Your task to perform on an android device: empty trash in the gmail app Image 0: 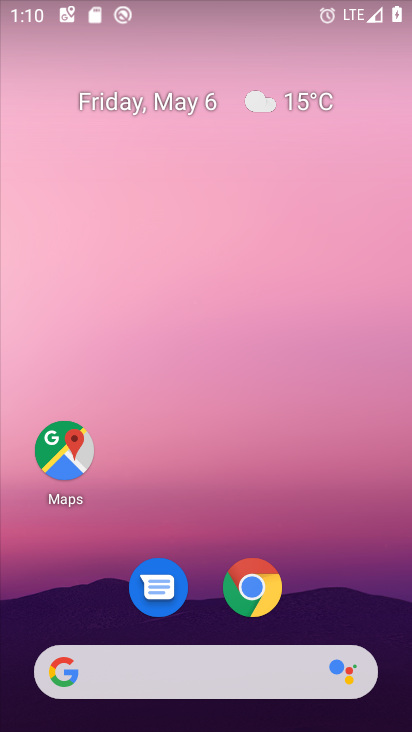
Step 0: drag from (338, 599) to (256, 62)
Your task to perform on an android device: empty trash in the gmail app Image 1: 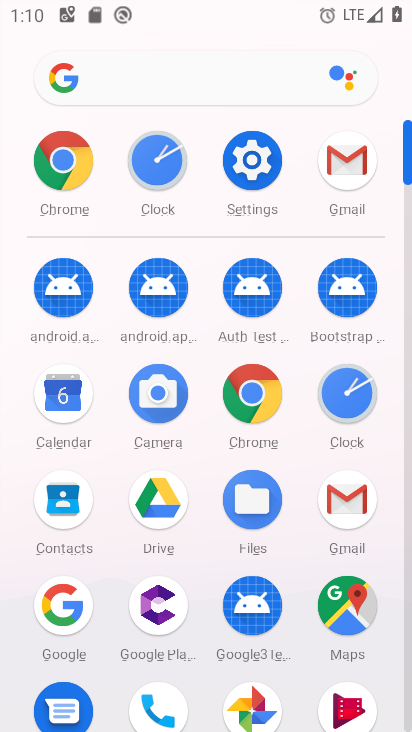
Step 1: click (353, 490)
Your task to perform on an android device: empty trash in the gmail app Image 2: 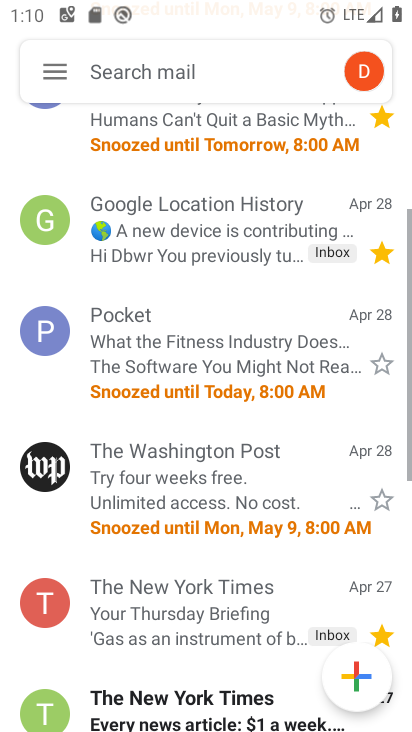
Step 2: click (61, 66)
Your task to perform on an android device: empty trash in the gmail app Image 3: 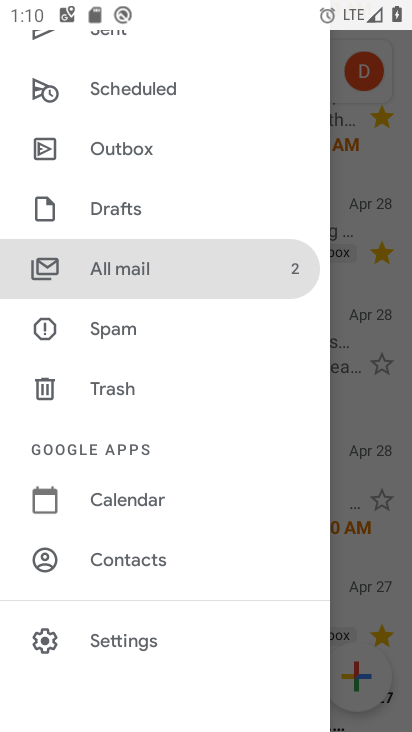
Step 3: click (123, 381)
Your task to perform on an android device: empty trash in the gmail app Image 4: 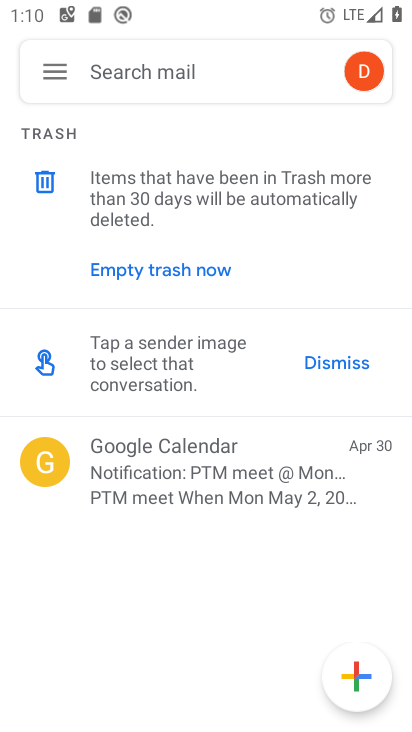
Step 4: click (187, 269)
Your task to perform on an android device: empty trash in the gmail app Image 5: 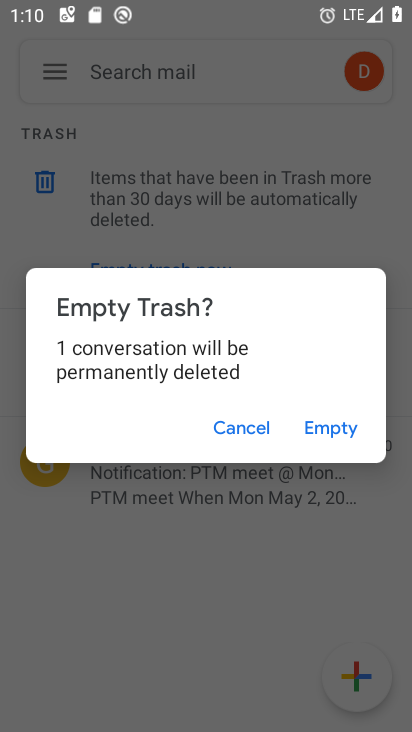
Step 5: click (346, 426)
Your task to perform on an android device: empty trash in the gmail app Image 6: 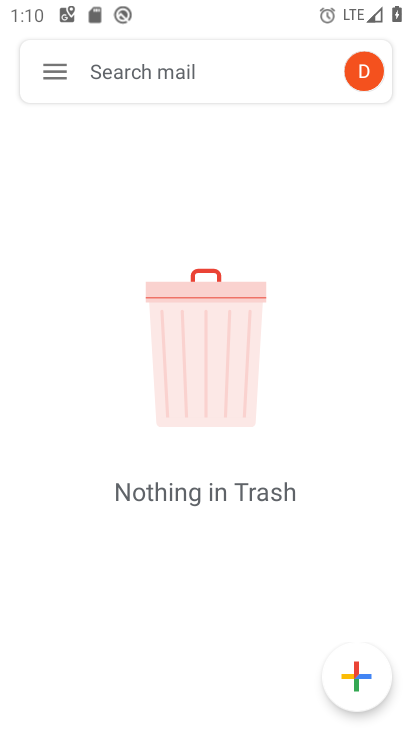
Step 6: task complete